Your task to perform on an android device: Open the calendar app, open the side menu, and click the "Day" option Image 0: 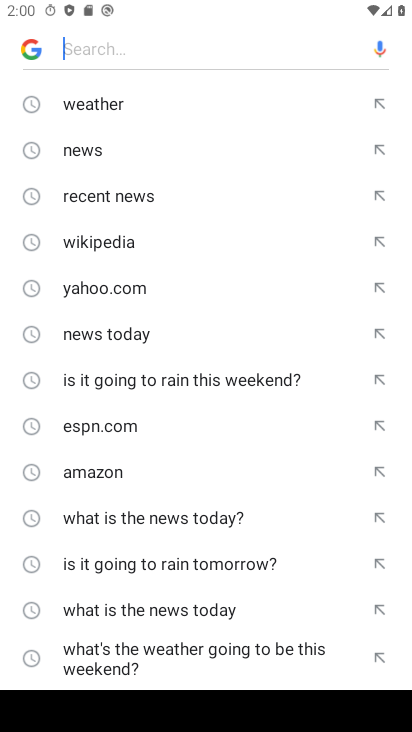
Step 0: press home button
Your task to perform on an android device: Open the calendar app, open the side menu, and click the "Day" option Image 1: 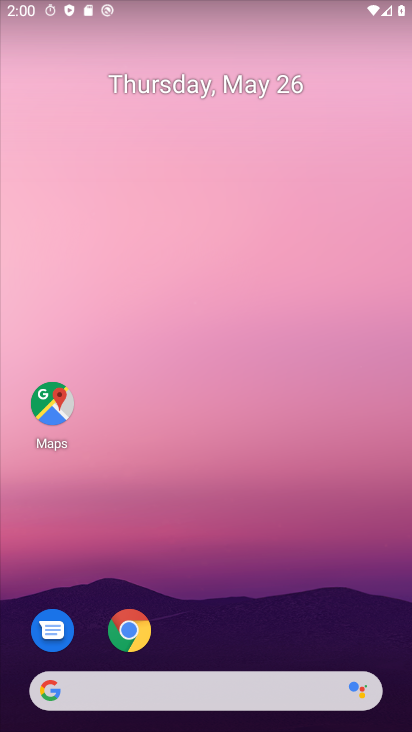
Step 1: drag from (240, 589) to (347, 11)
Your task to perform on an android device: Open the calendar app, open the side menu, and click the "Day" option Image 2: 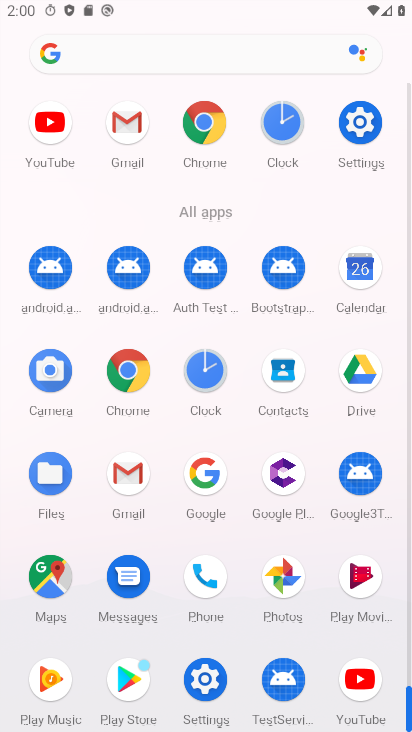
Step 2: click (385, 271)
Your task to perform on an android device: Open the calendar app, open the side menu, and click the "Day" option Image 3: 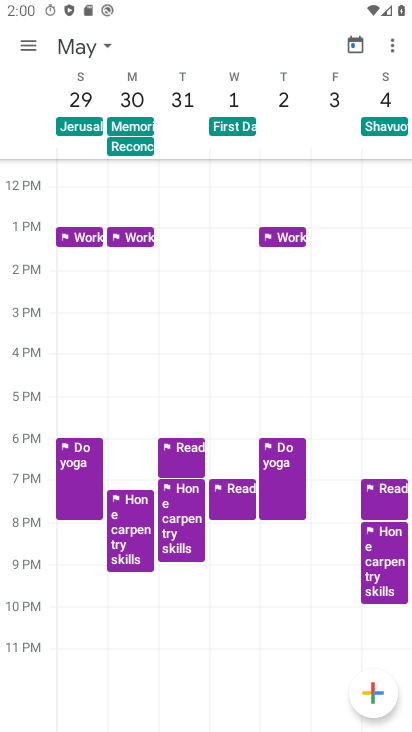
Step 3: click (12, 42)
Your task to perform on an android device: Open the calendar app, open the side menu, and click the "Day" option Image 4: 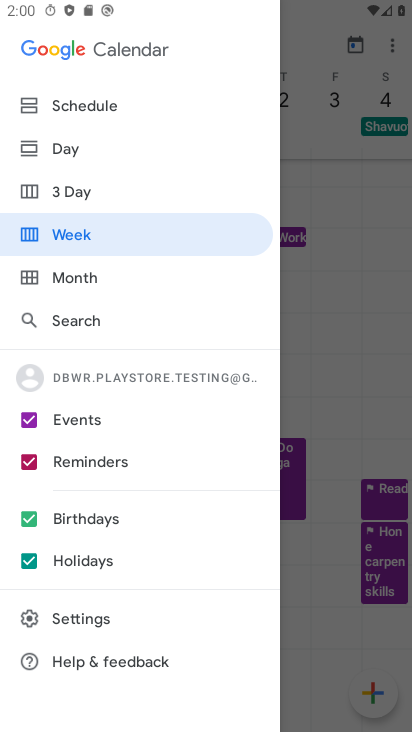
Step 4: click (86, 158)
Your task to perform on an android device: Open the calendar app, open the side menu, and click the "Day" option Image 5: 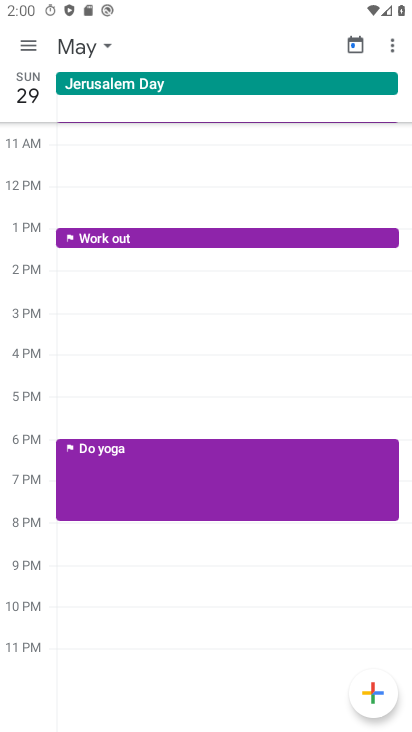
Step 5: task complete